Your task to perform on an android device: create a new album in the google photos Image 0: 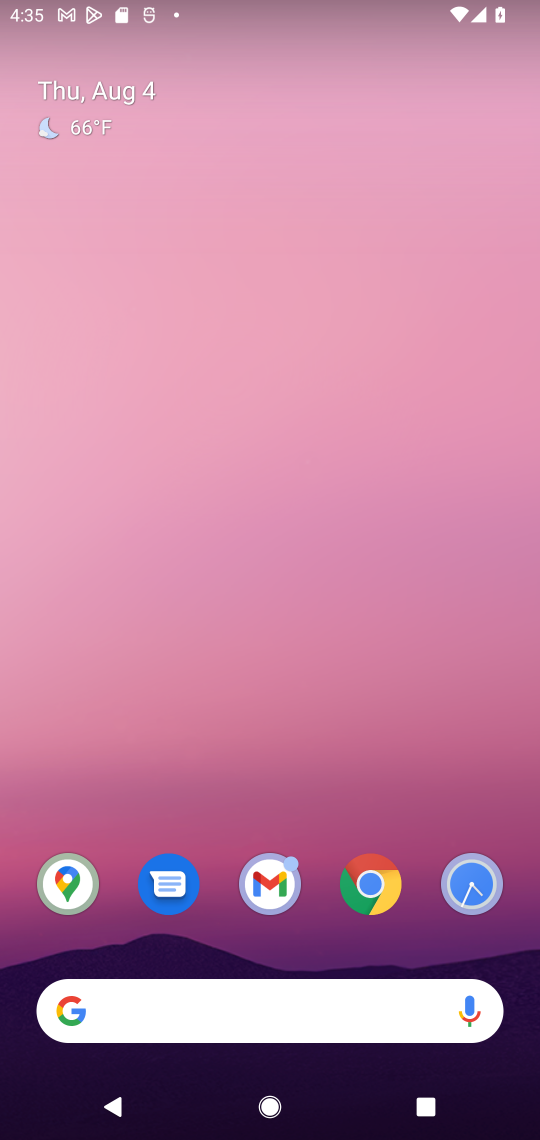
Step 0: drag from (329, 945) to (312, 136)
Your task to perform on an android device: create a new album in the google photos Image 1: 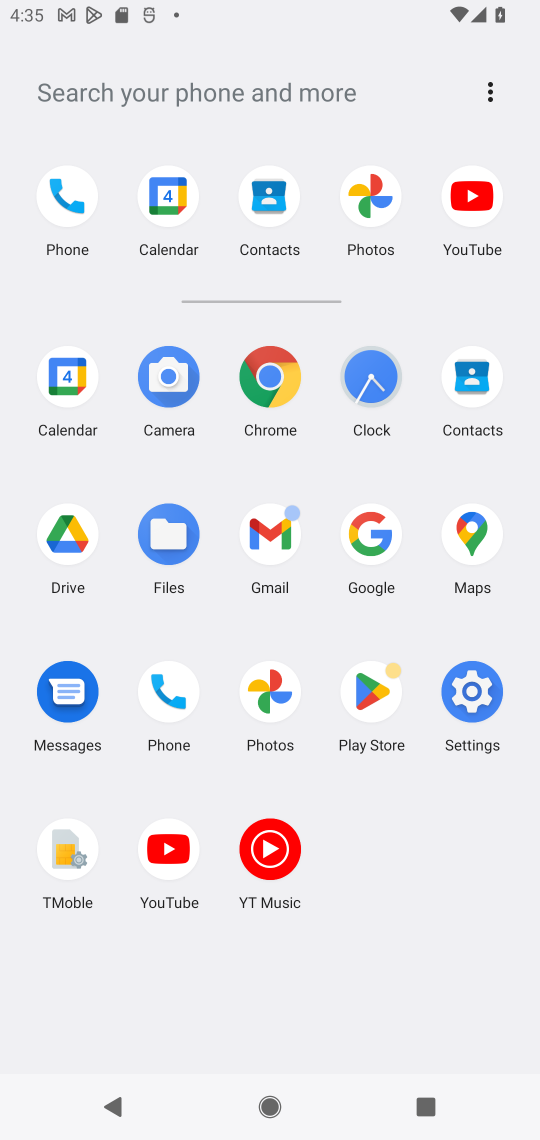
Step 1: click (284, 724)
Your task to perform on an android device: create a new album in the google photos Image 2: 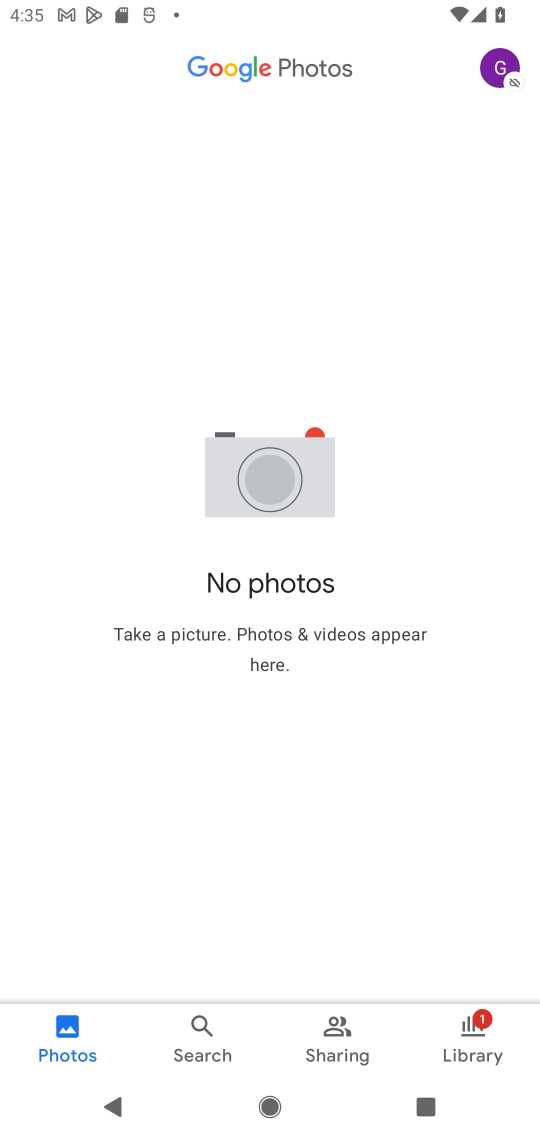
Step 2: task complete